Your task to perform on an android device: change notification settings in the gmail app Image 0: 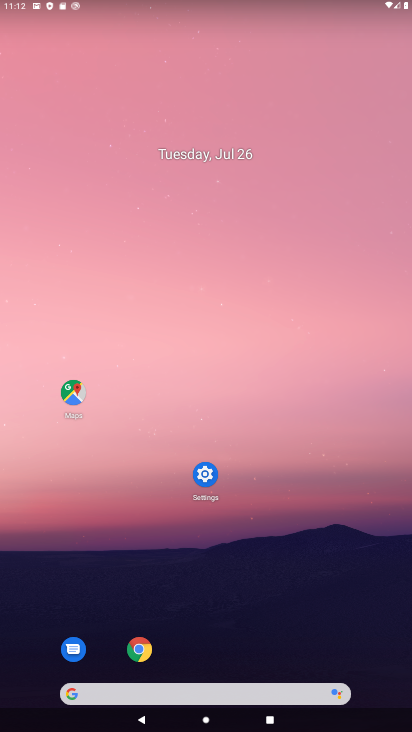
Step 0: click (401, 467)
Your task to perform on an android device: change notification settings in the gmail app Image 1: 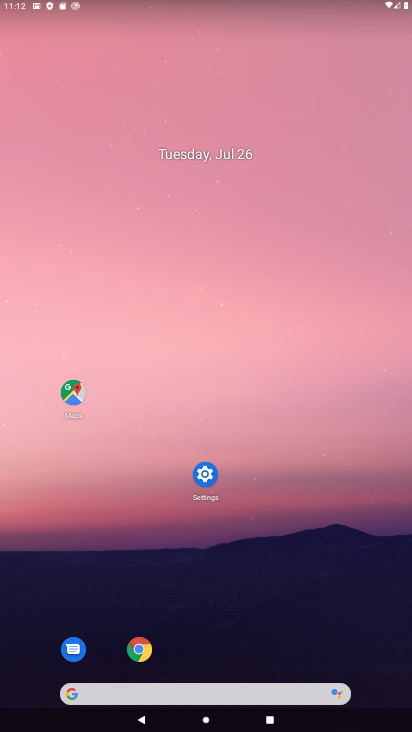
Step 1: drag from (301, 627) to (176, 225)
Your task to perform on an android device: change notification settings in the gmail app Image 2: 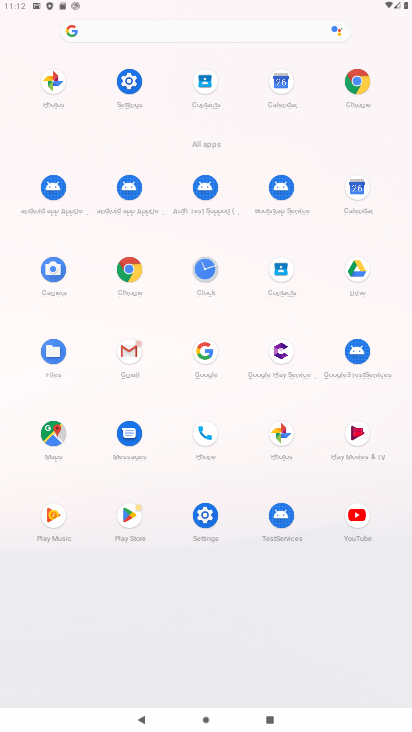
Step 2: click (143, 353)
Your task to perform on an android device: change notification settings in the gmail app Image 3: 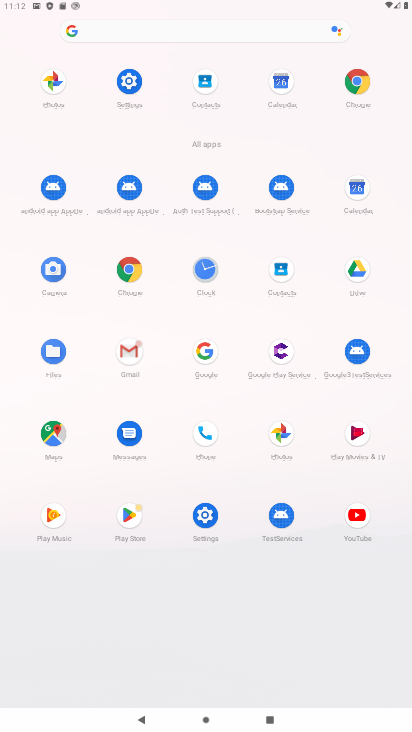
Step 3: click (142, 350)
Your task to perform on an android device: change notification settings in the gmail app Image 4: 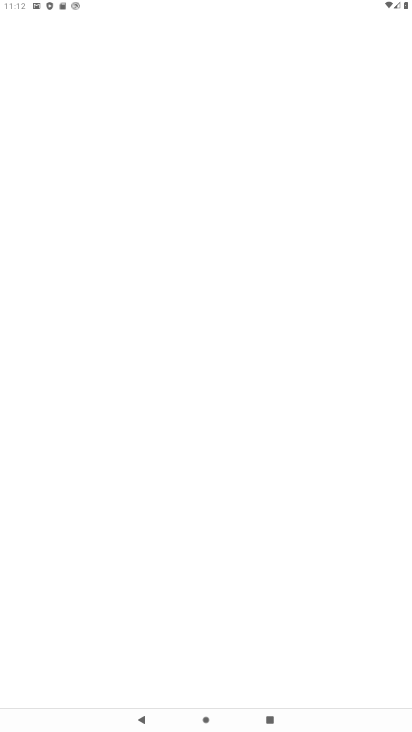
Step 4: click (143, 342)
Your task to perform on an android device: change notification settings in the gmail app Image 5: 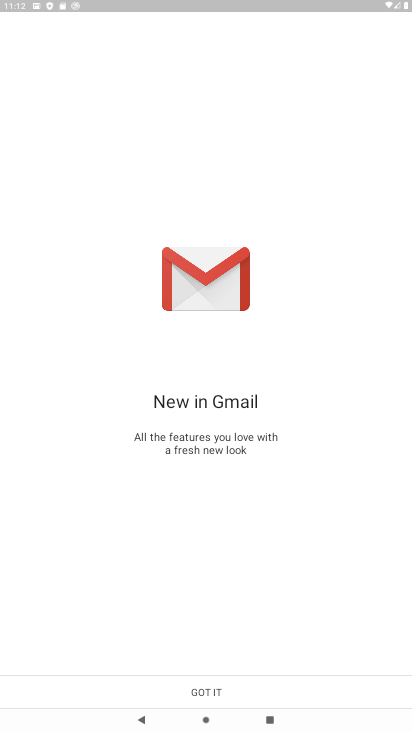
Step 5: click (212, 685)
Your task to perform on an android device: change notification settings in the gmail app Image 6: 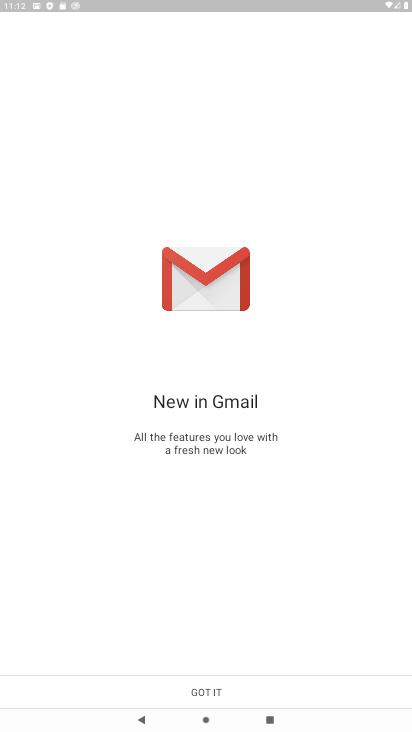
Step 6: click (207, 691)
Your task to perform on an android device: change notification settings in the gmail app Image 7: 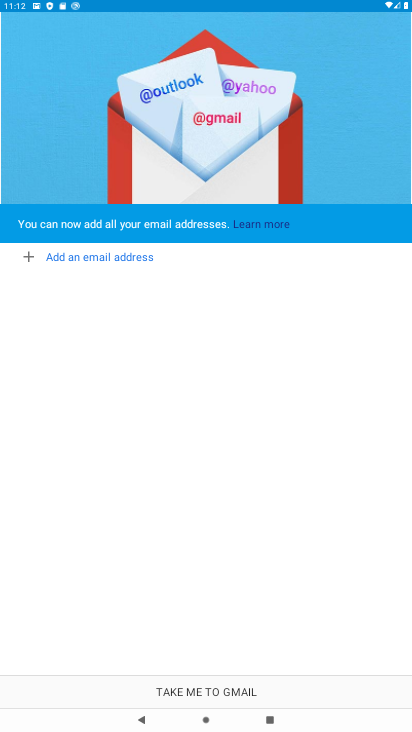
Step 7: click (213, 703)
Your task to perform on an android device: change notification settings in the gmail app Image 8: 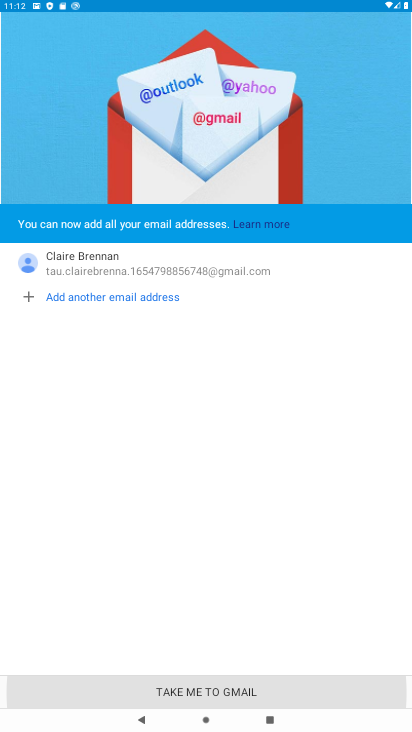
Step 8: click (215, 702)
Your task to perform on an android device: change notification settings in the gmail app Image 9: 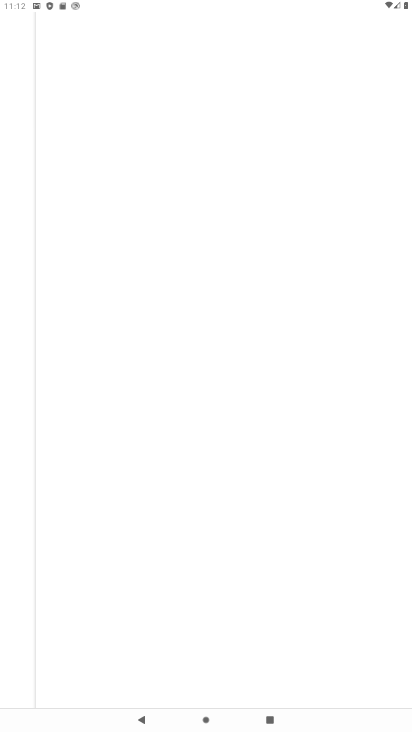
Step 9: click (219, 697)
Your task to perform on an android device: change notification settings in the gmail app Image 10: 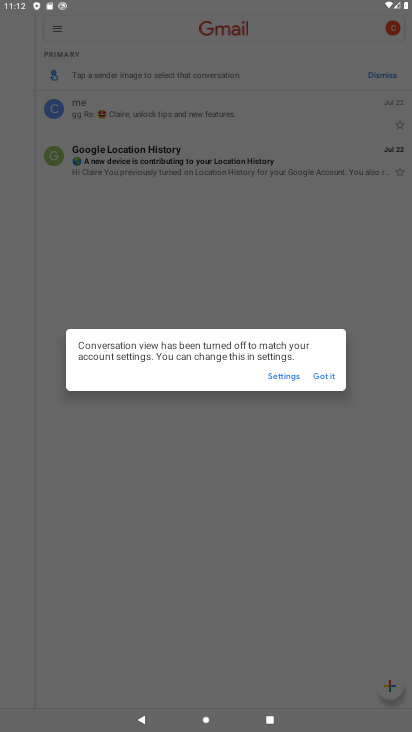
Step 10: click (319, 373)
Your task to perform on an android device: change notification settings in the gmail app Image 11: 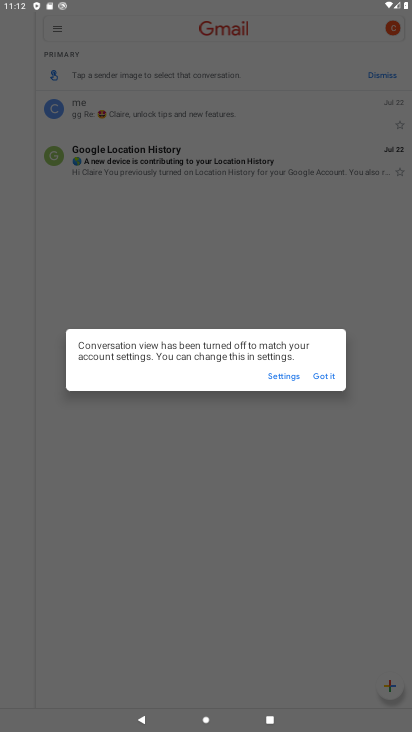
Step 11: click (319, 372)
Your task to perform on an android device: change notification settings in the gmail app Image 12: 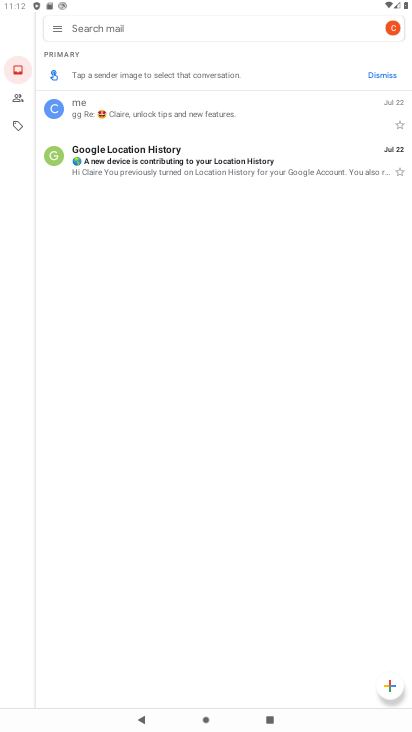
Step 12: click (58, 26)
Your task to perform on an android device: change notification settings in the gmail app Image 13: 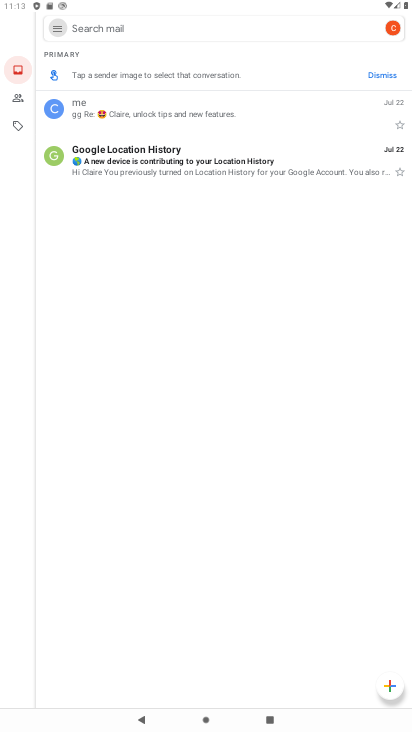
Step 13: click (58, 31)
Your task to perform on an android device: change notification settings in the gmail app Image 14: 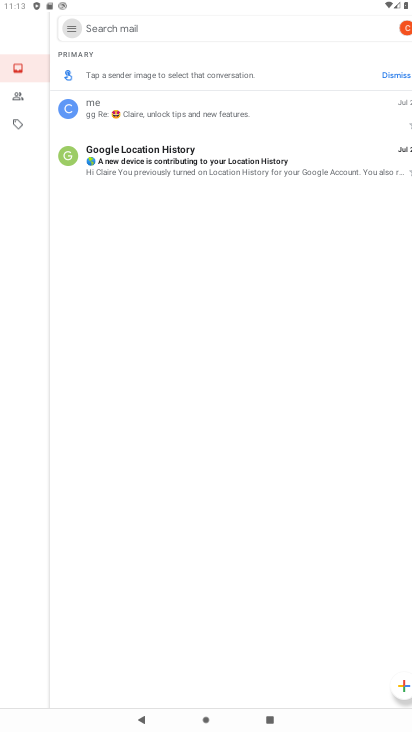
Step 14: click (64, 52)
Your task to perform on an android device: change notification settings in the gmail app Image 15: 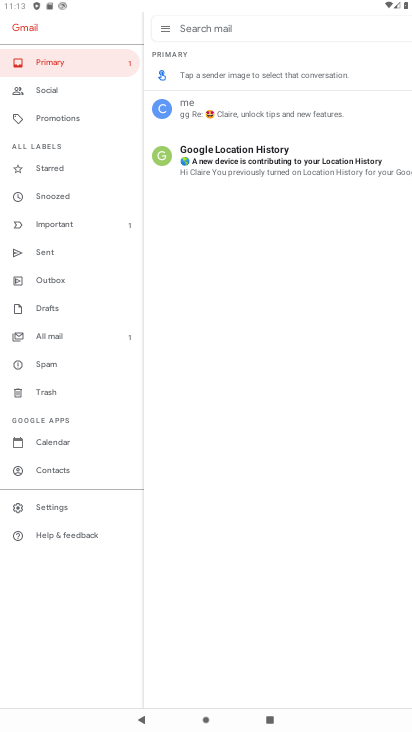
Step 15: click (51, 495)
Your task to perform on an android device: change notification settings in the gmail app Image 16: 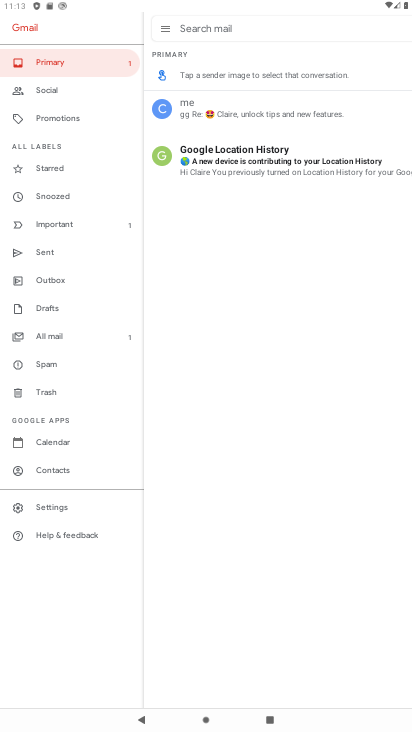
Step 16: click (57, 498)
Your task to perform on an android device: change notification settings in the gmail app Image 17: 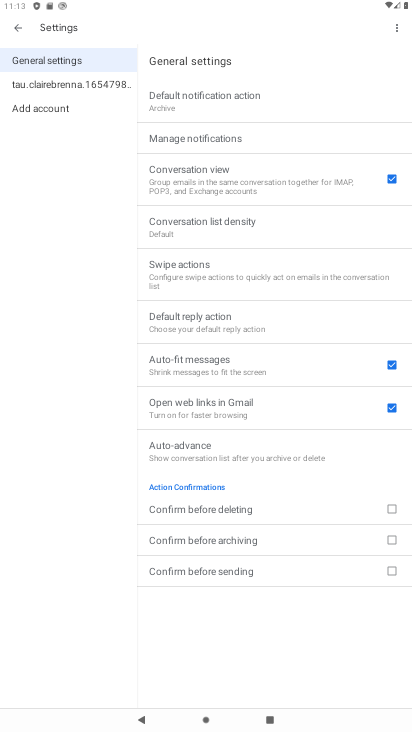
Step 17: click (75, 85)
Your task to perform on an android device: change notification settings in the gmail app Image 18: 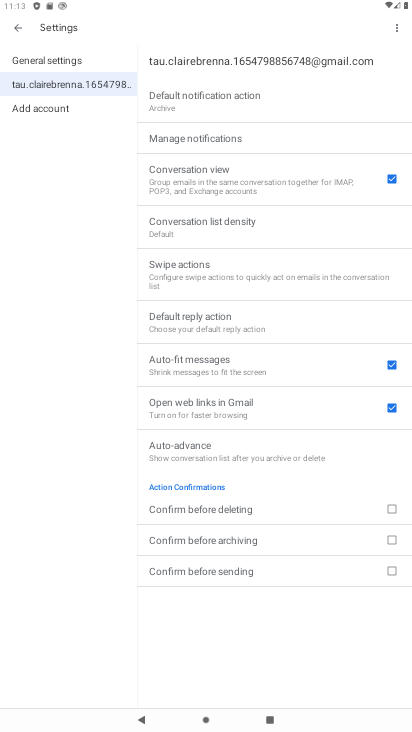
Step 18: click (77, 92)
Your task to perform on an android device: change notification settings in the gmail app Image 19: 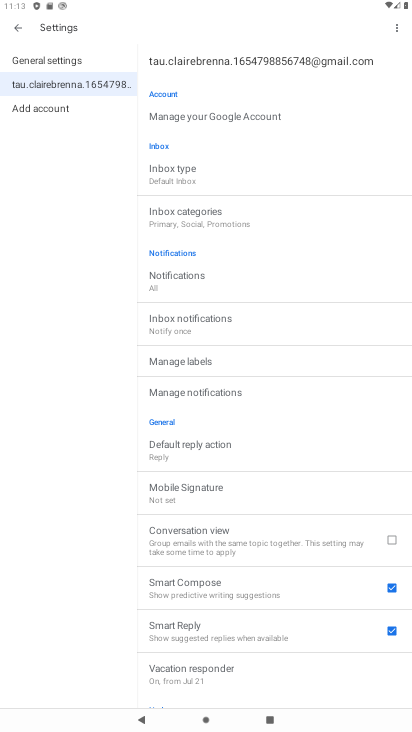
Step 19: click (182, 279)
Your task to perform on an android device: change notification settings in the gmail app Image 20: 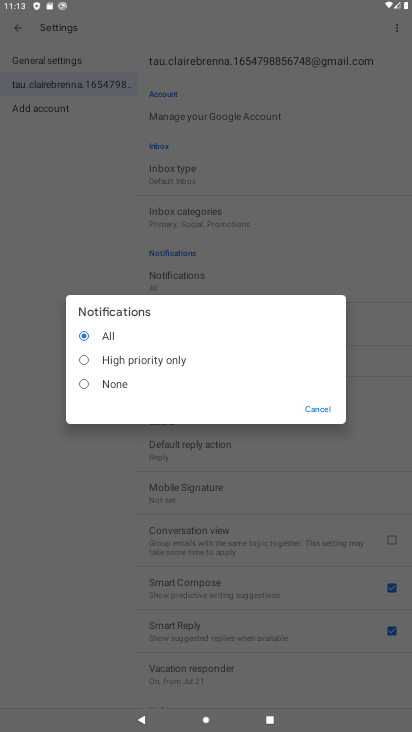
Step 20: click (90, 358)
Your task to perform on an android device: change notification settings in the gmail app Image 21: 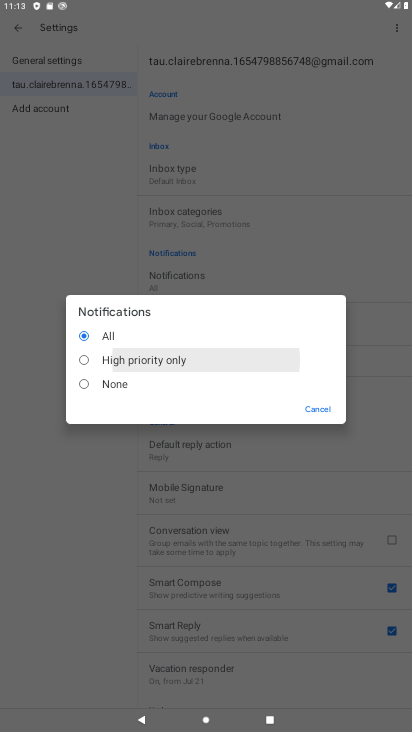
Step 21: click (90, 358)
Your task to perform on an android device: change notification settings in the gmail app Image 22: 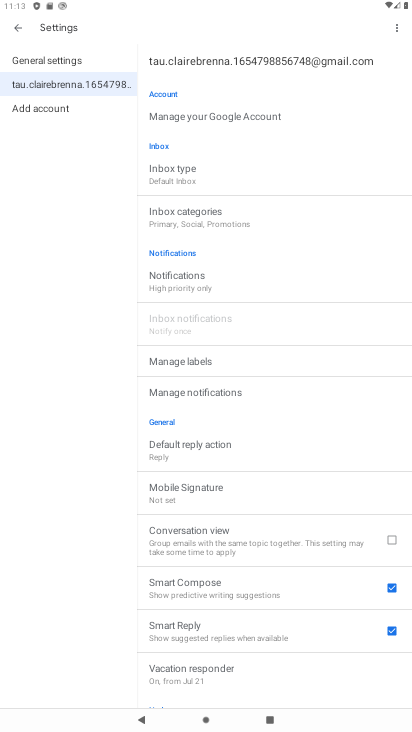
Step 22: task complete